Your task to perform on an android device: Go to Amazon Image 0: 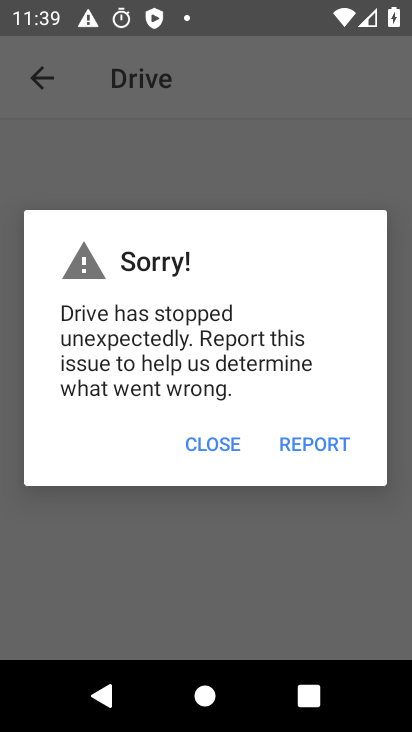
Step 0: press home button
Your task to perform on an android device: Go to Amazon Image 1: 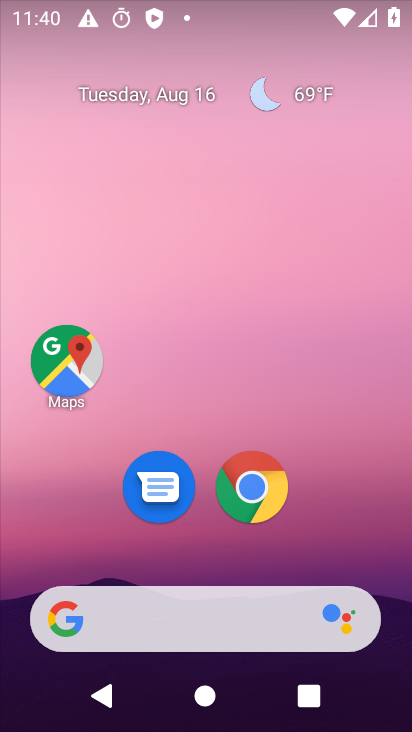
Step 1: click (242, 113)
Your task to perform on an android device: Go to Amazon Image 2: 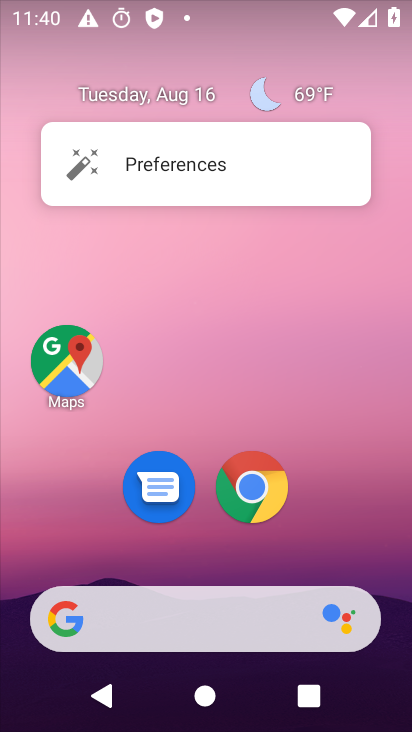
Step 2: click (323, 524)
Your task to perform on an android device: Go to Amazon Image 3: 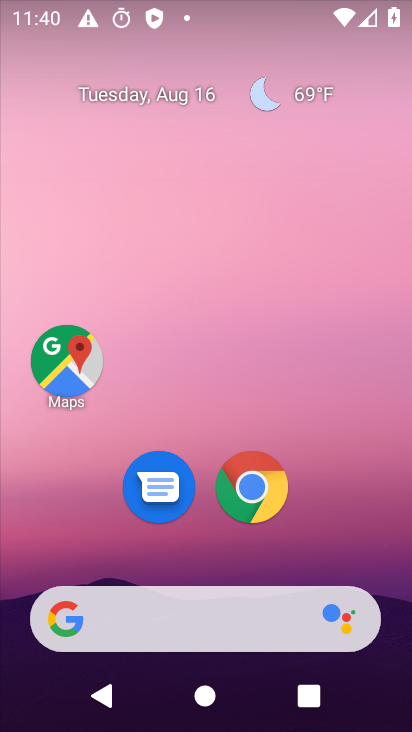
Step 3: drag from (348, 549) to (326, 13)
Your task to perform on an android device: Go to Amazon Image 4: 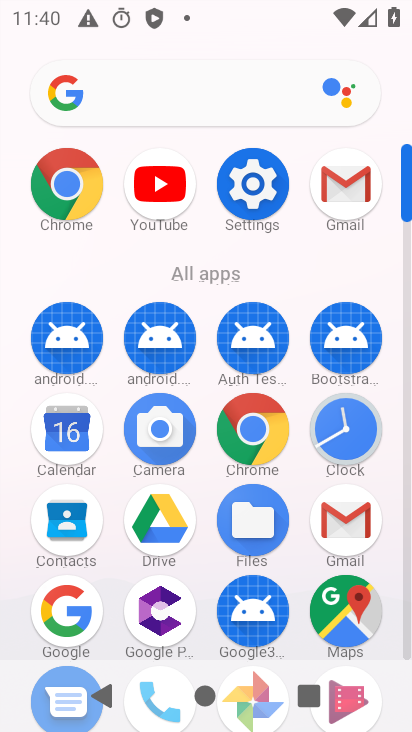
Step 4: click (63, 183)
Your task to perform on an android device: Go to Amazon Image 5: 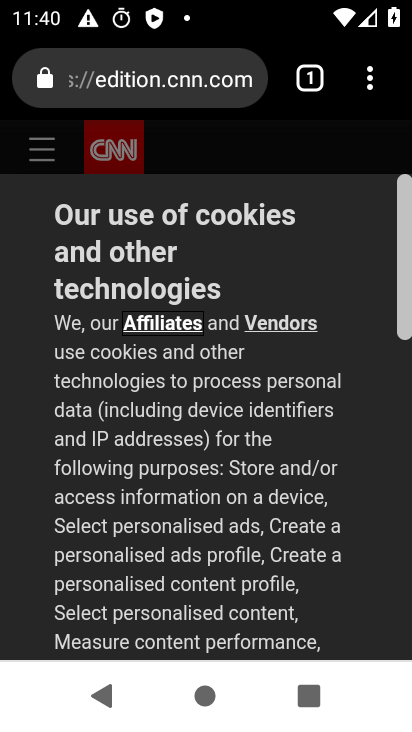
Step 5: click (306, 90)
Your task to perform on an android device: Go to Amazon Image 6: 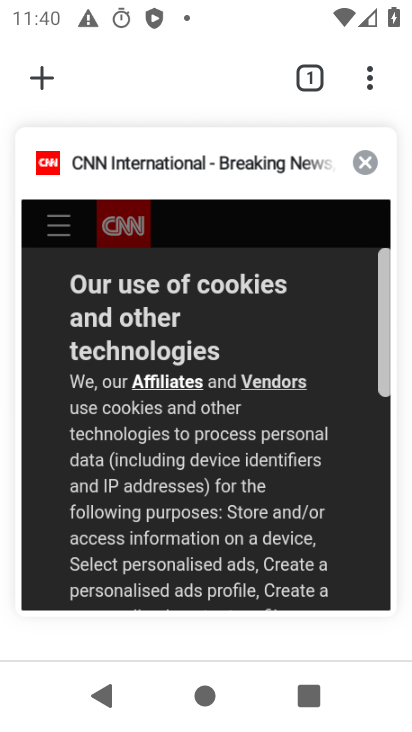
Step 6: click (369, 165)
Your task to perform on an android device: Go to Amazon Image 7: 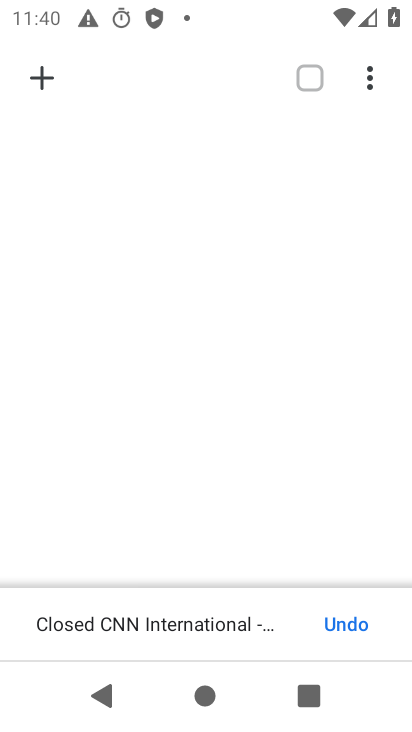
Step 7: click (40, 68)
Your task to perform on an android device: Go to Amazon Image 8: 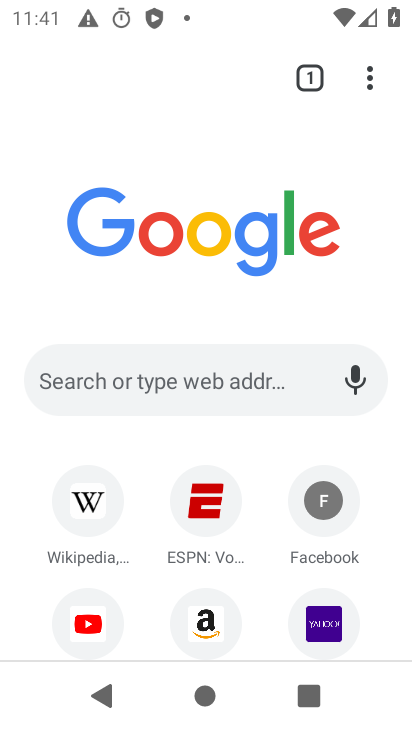
Step 8: click (207, 618)
Your task to perform on an android device: Go to Amazon Image 9: 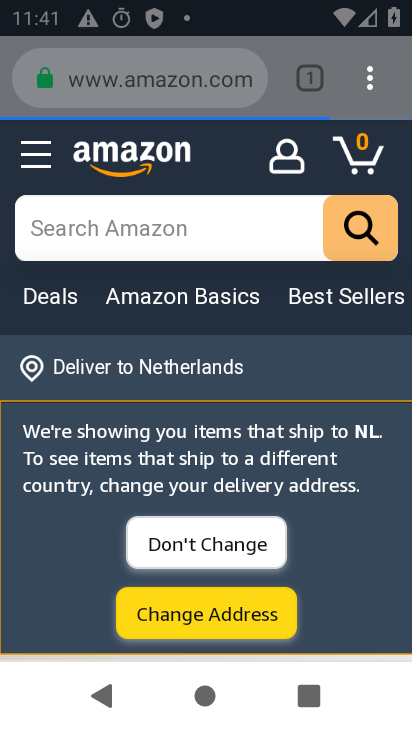
Step 9: task complete